Your task to perform on an android device: What's on my calendar tomorrow? Image 0: 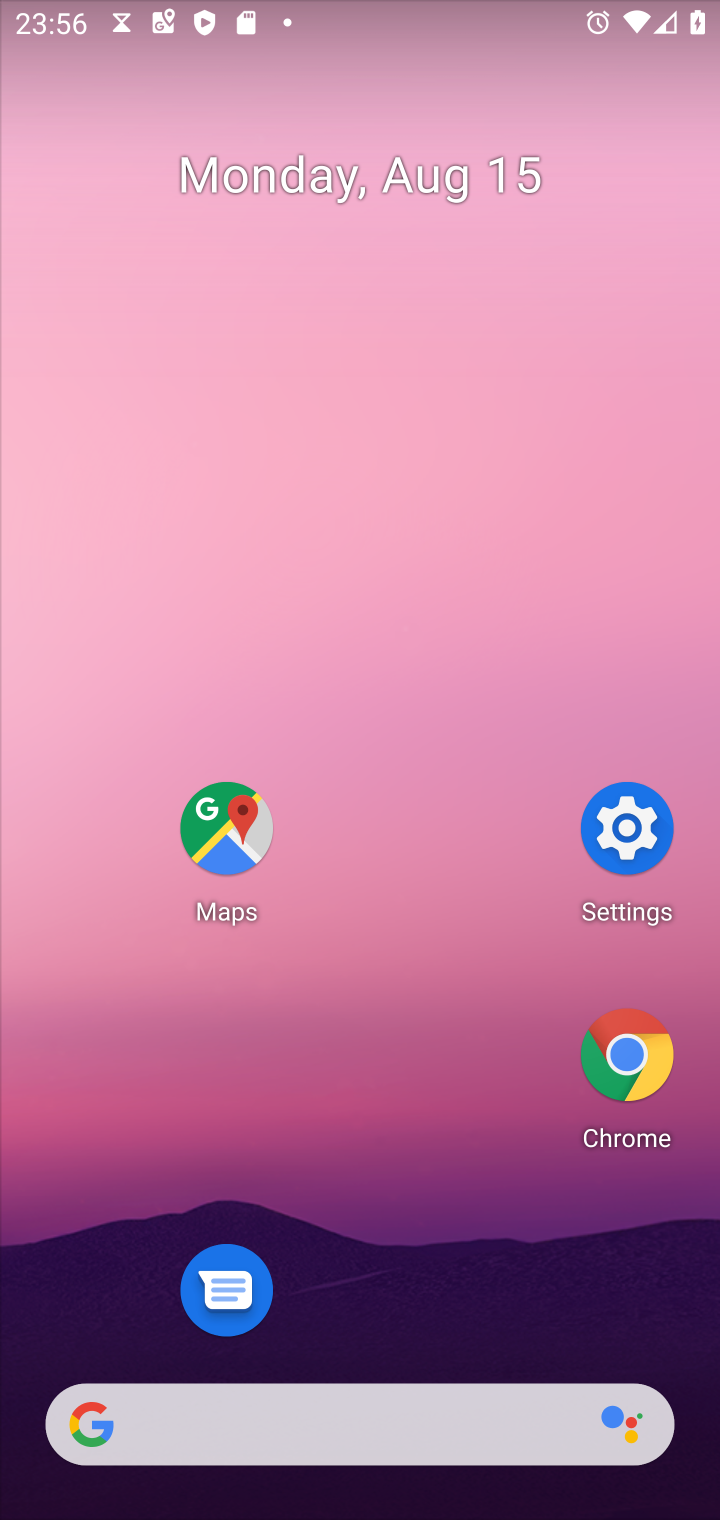
Step 0: drag from (410, 1082) to (617, 226)
Your task to perform on an android device: What's on my calendar tomorrow? Image 1: 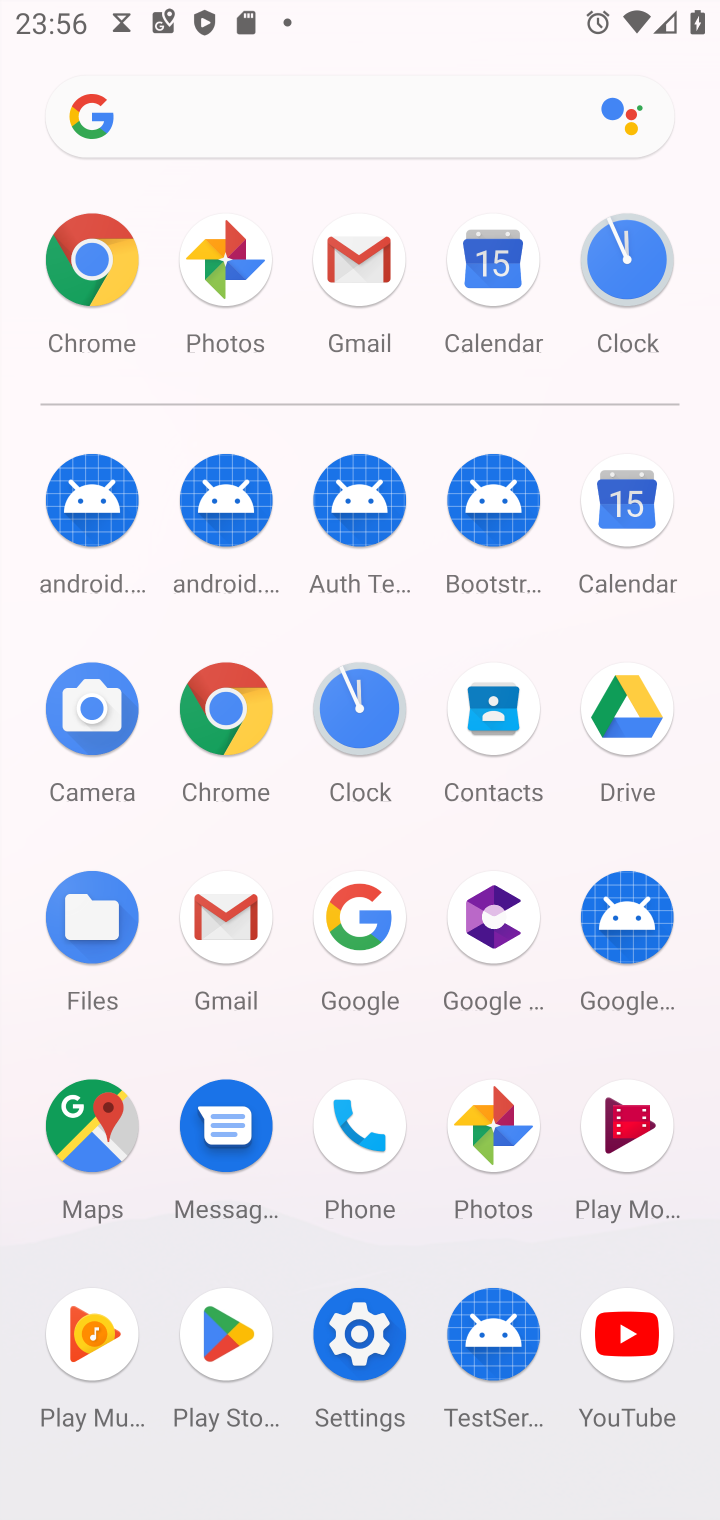
Step 1: click (484, 266)
Your task to perform on an android device: What's on my calendar tomorrow? Image 2: 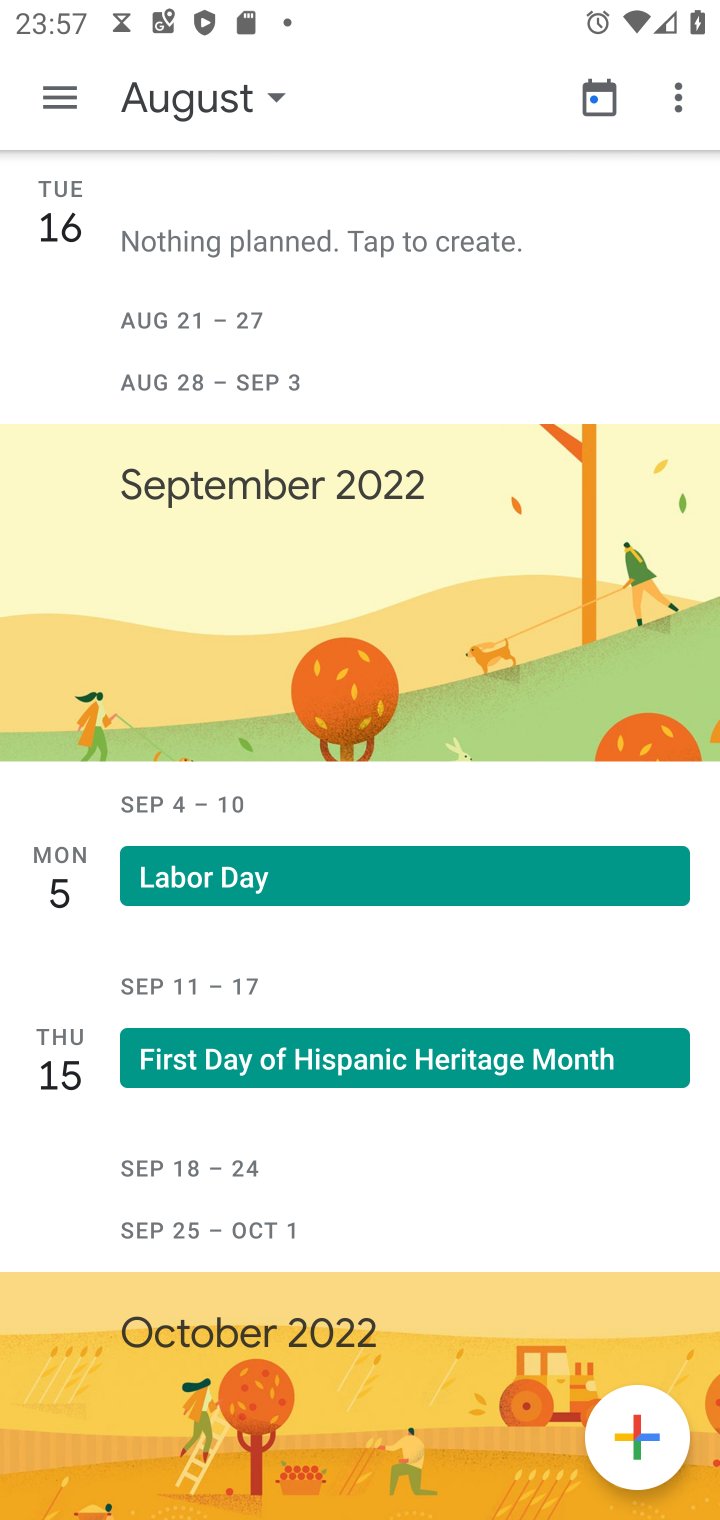
Step 2: task complete